Your task to perform on an android device: Open Chrome and go to settings Image 0: 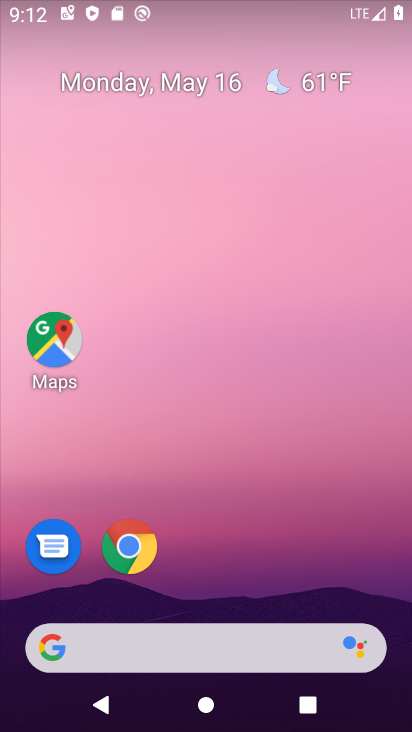
Step 0: click (154, 559)
Your task to perform on an android device: Open Chrome and go to settings Image 1: 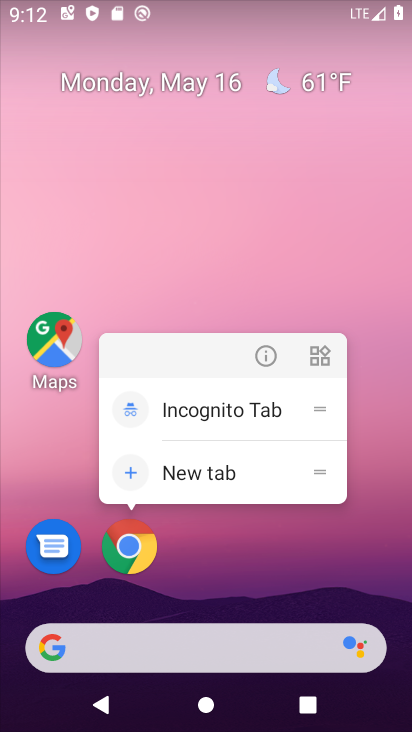
Step 1: click (154, 559)
Your task to perform on an android device: Open Chrome and go to settings Image 2: 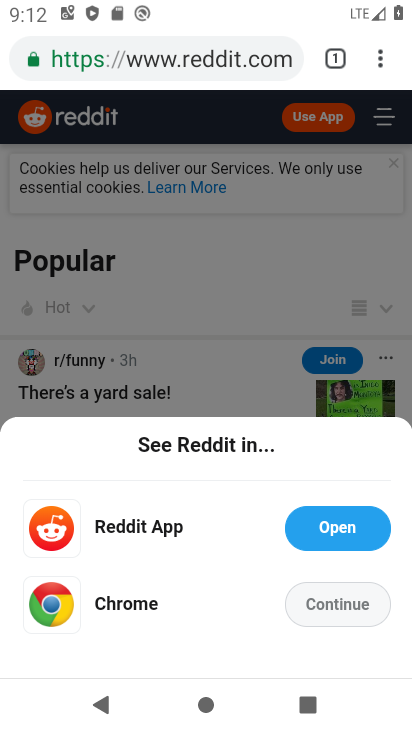
Step 2: click (325, 592)
Your task to perform on an android device: Open Chrome and go to settings Image 3: 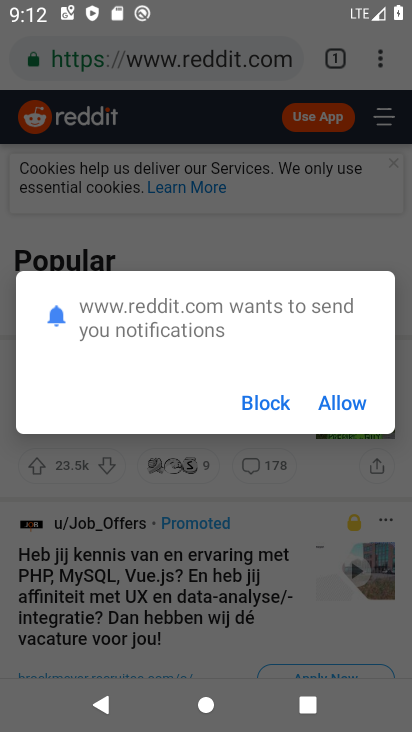
Step 3: click (284, 405)
Your task to perform on an android device: Open Chrome and go to settings Image 4: 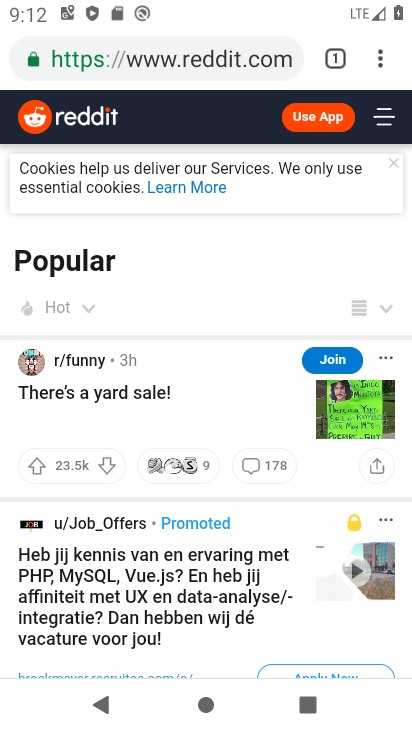
Step 4: click (385, 70)
Your task to perform on an android device: Open Chrome and go to settings Image 5: 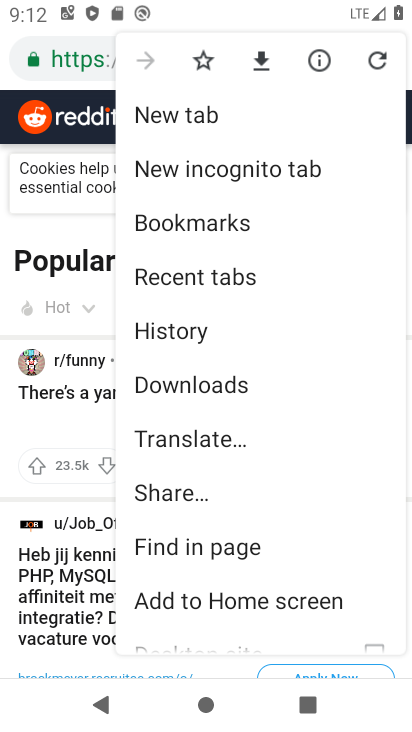
Step 5: drag from (306, 535) to (272, 323)
Your task to perform on an android device: Open Chrome and go to settings Image 6: 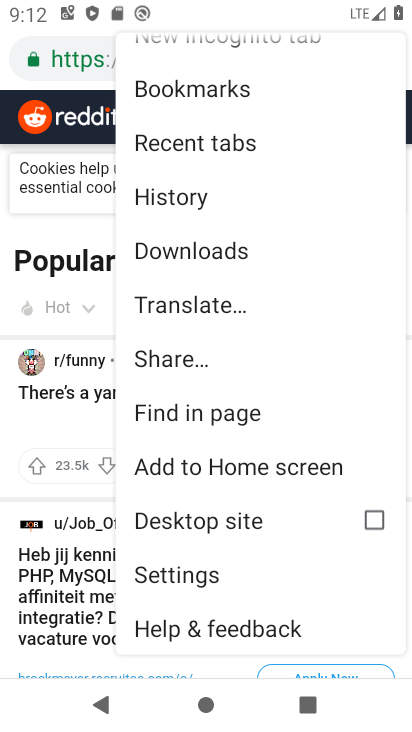
Step 6: click (218, 568)
Your task to perform on an android device: Open Chrome and go to settings Image 7: 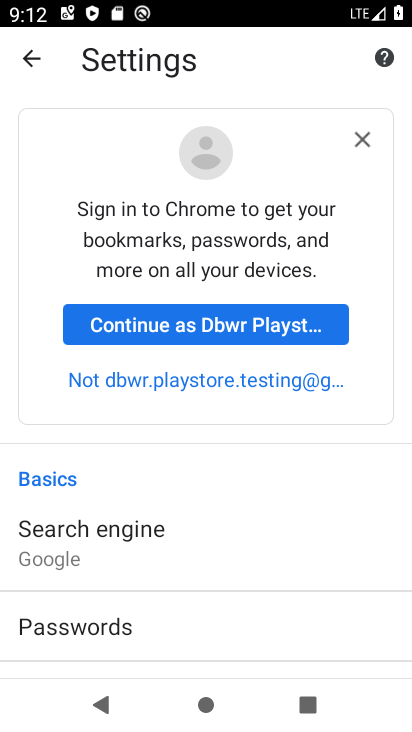
Step 7: task complete